Your task to perform on an android device: Open eBay Image 0: 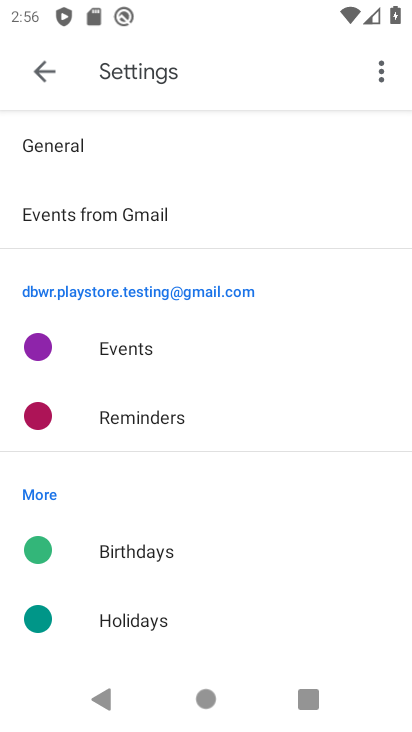
Step 0: press home button
Your task to perform on an android device: Open eBay Image 1: 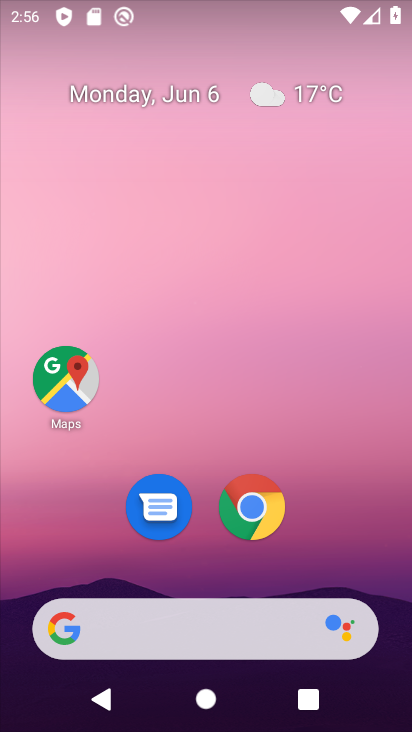
Step 1: click (170, 625)
Your task to perform on an android device: Open eBay Image 2: 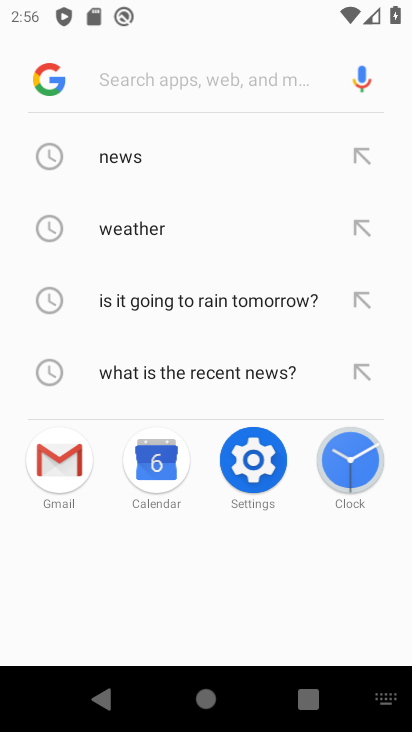
Step 2: type " eBay"
Your task to perform on an android device: Open eBay Image 3: 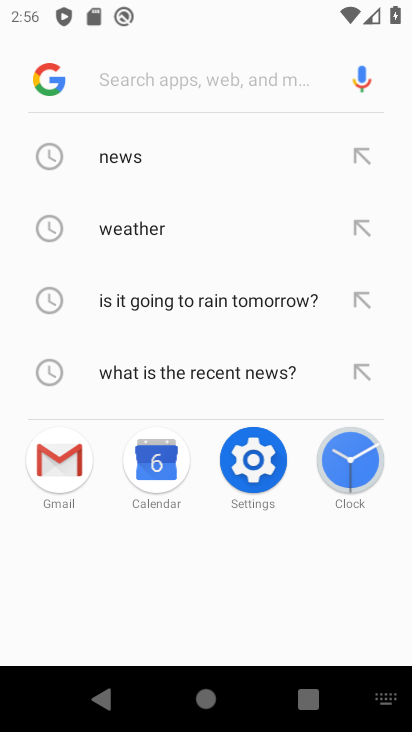
Step 3: click (175, 86)
Your task to perform on an android device: Open eBay Image 4: 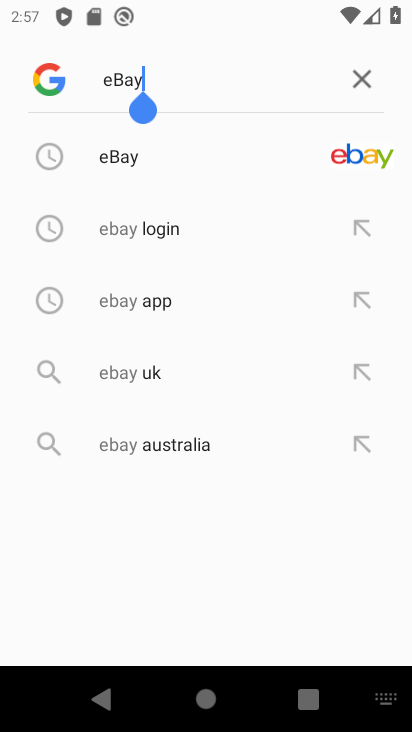
Step 4: click (122, 154)
Your task to perform on an android device: Open eBay Image 5: 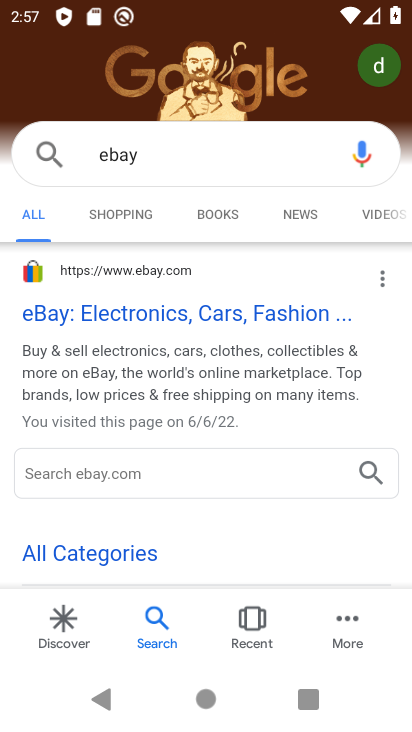
Step 5: click (90, 312)
Your task to perform on an android device: Open eBay Image 6: 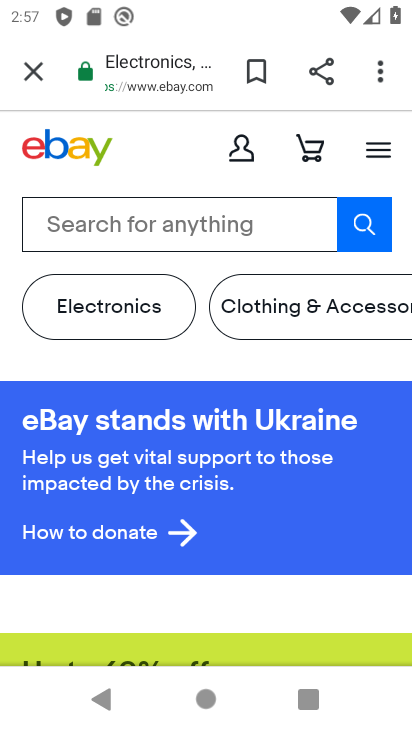
Step 6: drag from (381, 600) to (297, 551)
Your task to perform on an android device: Open eBay Image 7: 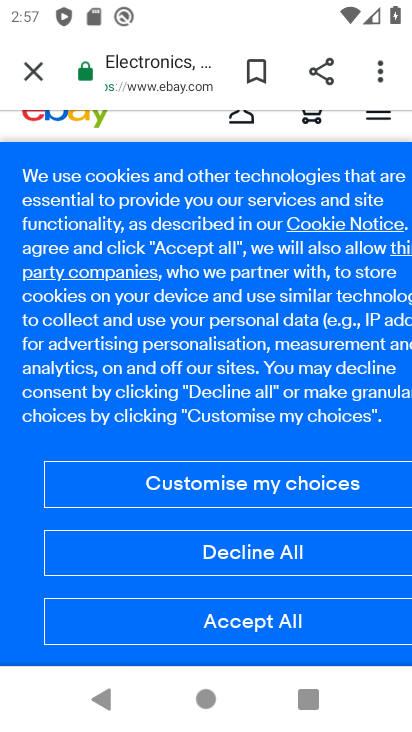
Step 7: click (154, 123)
Your task to perform on an android device: Open eBay Image 8: 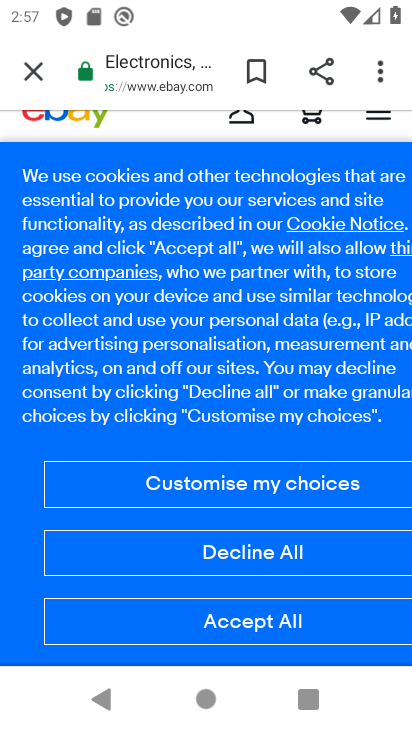
Step 8: click (240, 491)
Your task to perform on an android device: Open eBay Image 9: 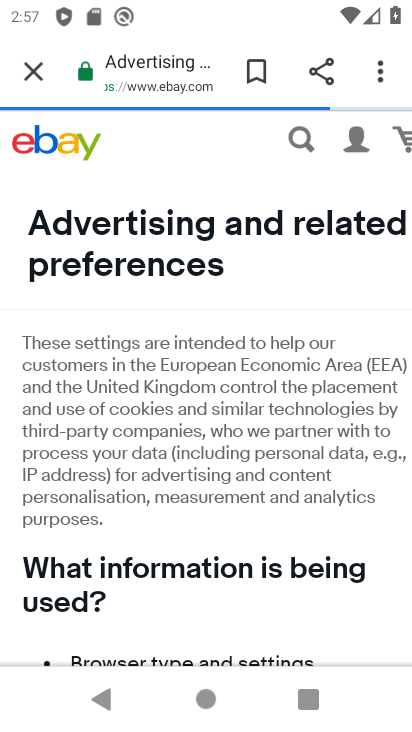
Step 9: task complete